Your task to perform on an android device: turn off picture-in-picture Image 0: 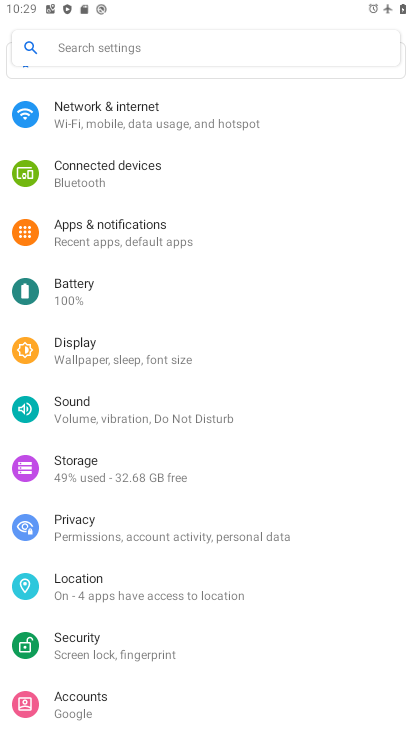
Step 0: click (93, 234)
Your task to perform on an android device: turn off picture-in-picture Image 1: 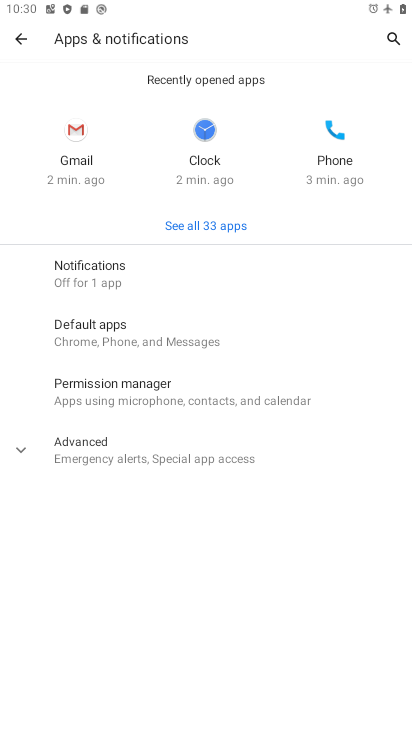
Step 1: click (91, 456)
Your task to perform on an android device: turn off picture-in-picture Image 2: 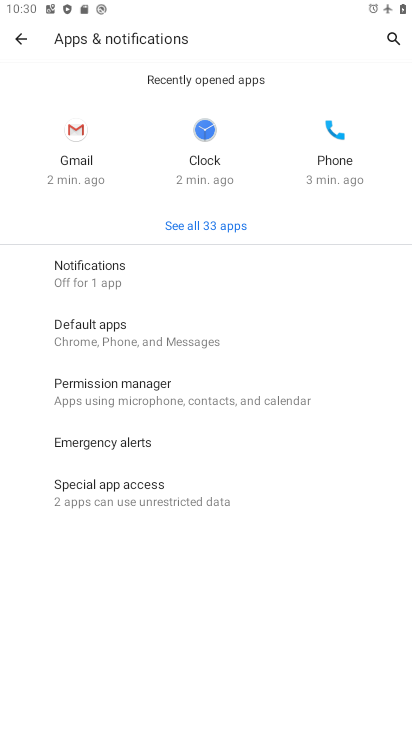
Step 2: click (97, 483)
Your task to perform on an android device: turn off picture-in-picture Image 3: 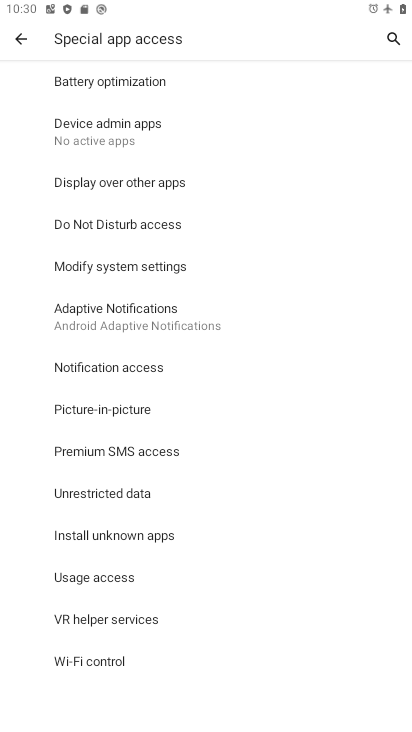
Step 3: click (105, 400)
Your task to perform on an android device: turn off picture-in-picture Image 4: 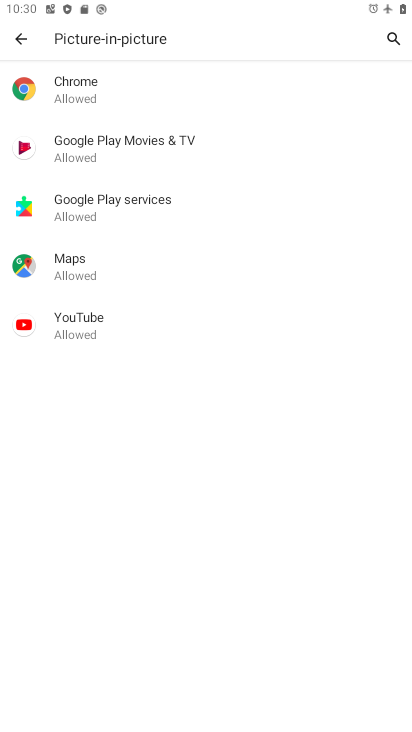
Step 4: click (104, 323)
Your task to perform on an android device: turn off picture-in-picture Image 5: 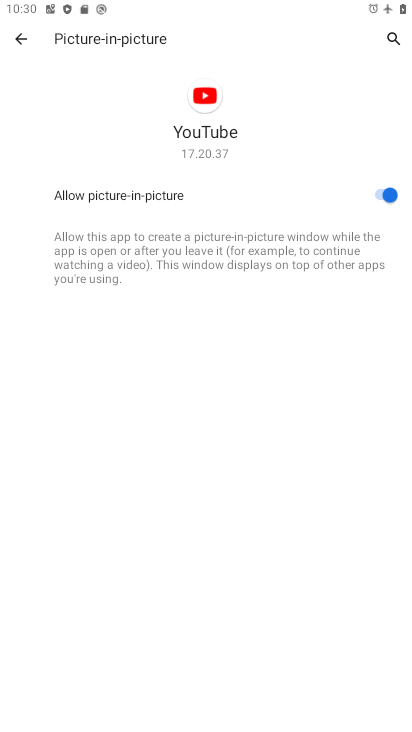
Step 5: click (379, 193)
Your task to perform on an android device: turn off picture-in-picture Image 6: 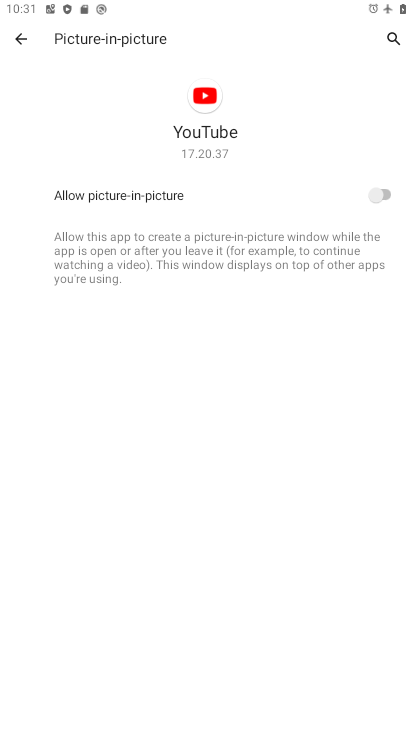
Step 6: task complete